Your task to perform on an android device: Go to Wikipedia Image 0: 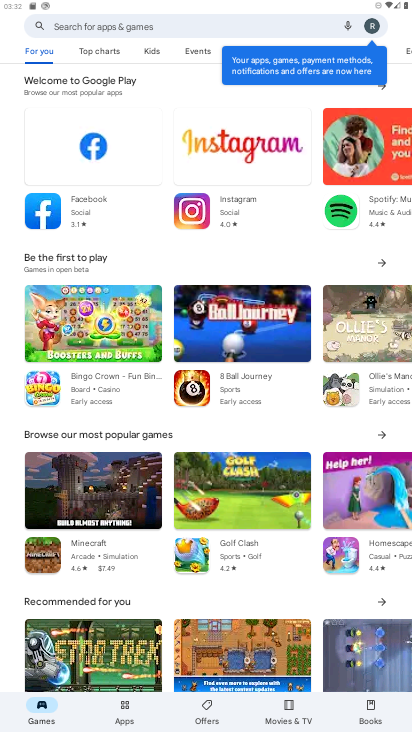
Step 0: press home button
Your task to perform on an android device: Go to Wikipedia Image 1: 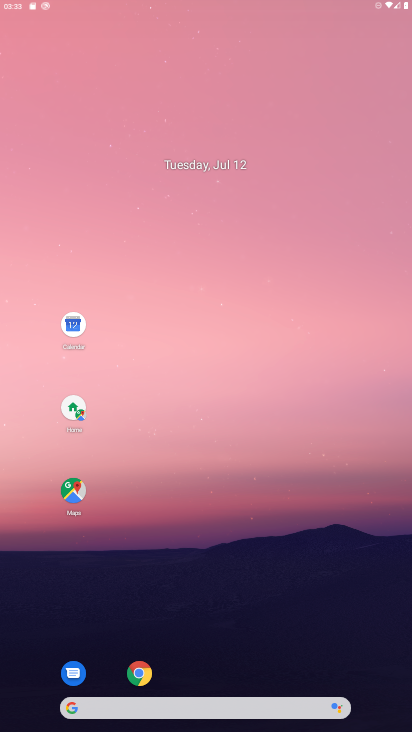
Step 1: drag from (238, 583) to (251, 223)
Your task to perform on an android device: Go to Wikipedia Image 2: 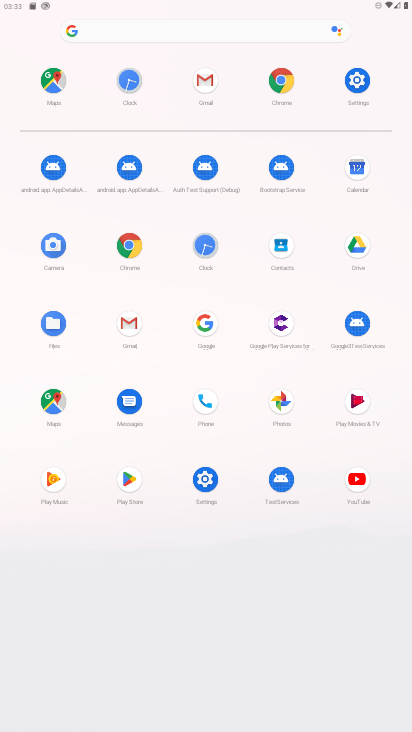
Step 2: click (118, 240)
Your task to perform on an android device: Go to Wikipedia Image 3: 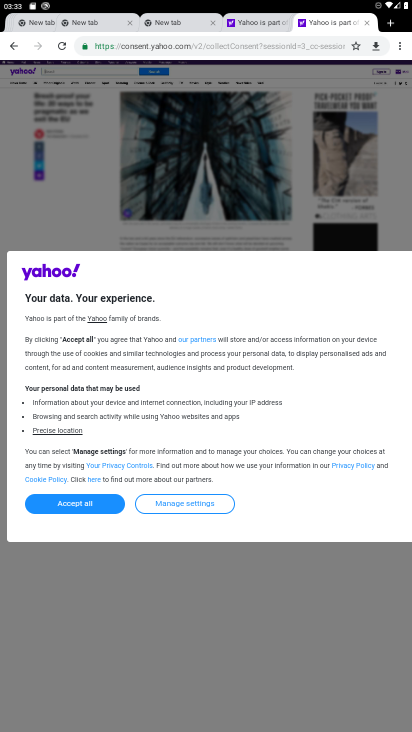
Step 3: click (398, 46)
Your task to perform on an android device: Go to Wikipedia Image 4: 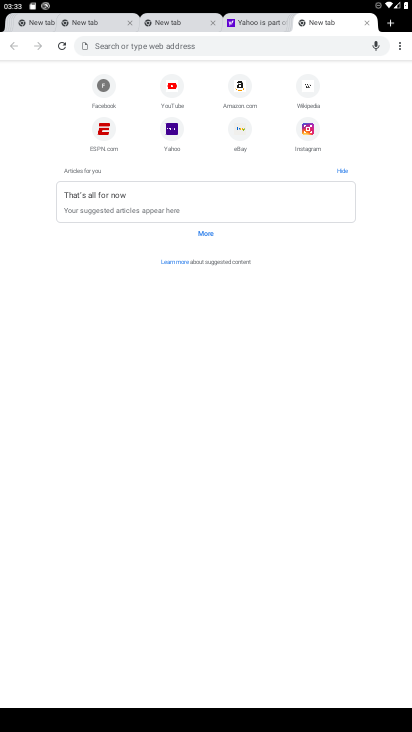
Step 4: click (303, 91)
Your task to perform on an android device: Go to Wikipedia Image 5: 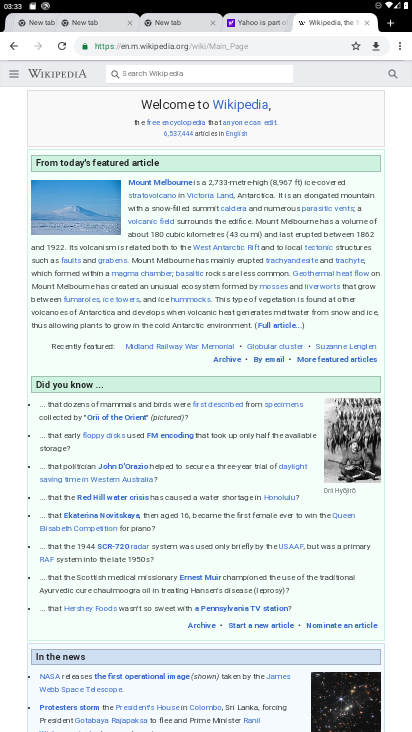
Step 5: task complete